Your task to perform on an android device: Open Android settings Image 0: 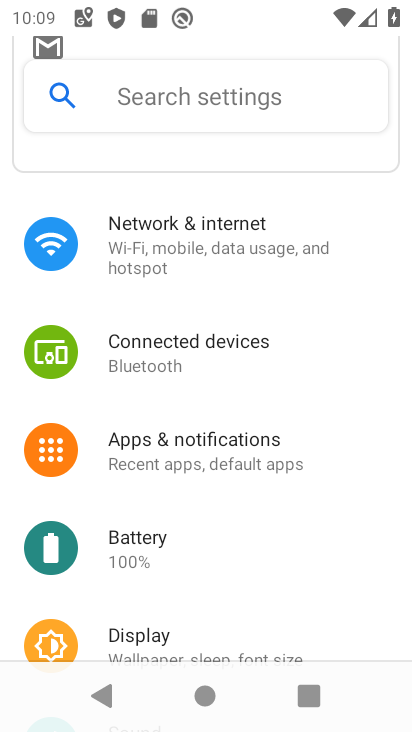
Step 0: press home button
Your task to perform on an android device: Open Android settings Image 1: 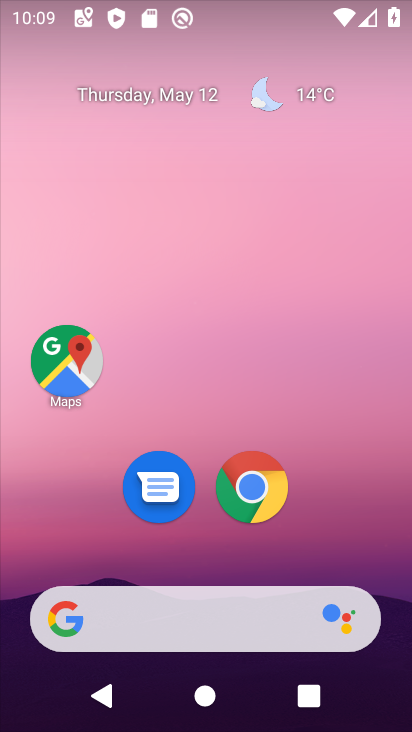
Step 1: drag from (27, 639) to (281, 99)
Your task to perform on an android device: Open Android settings Image 2: 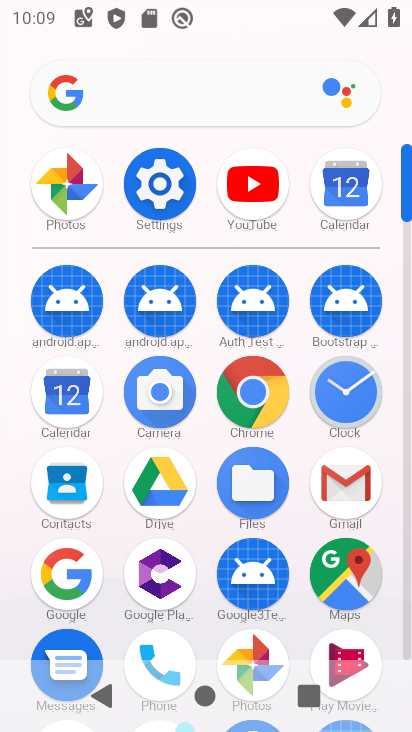
Step 2: click (154, 179)
Your task to perform on an android device: Open Android settings Image 3: 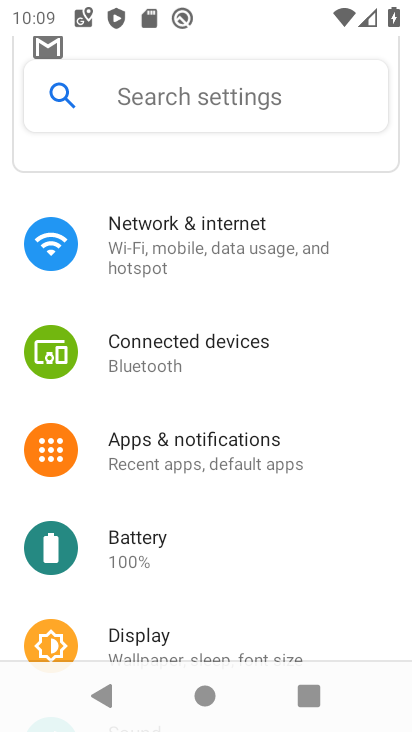
Step 3: drag from (191, 717) to (261, 205)
Your task to perform on an android device: Open Android settings Image 4: 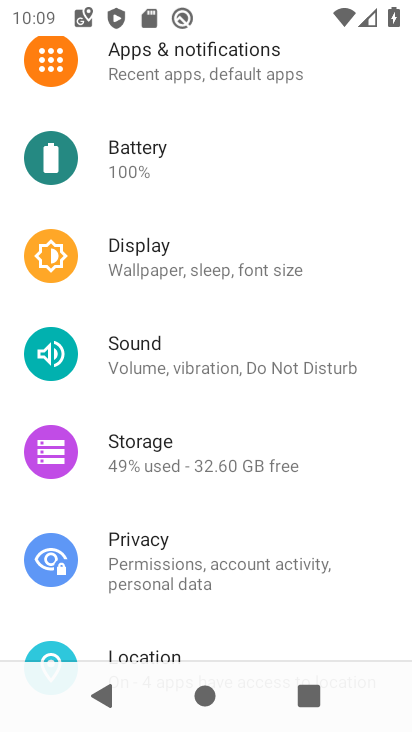
Step 4: drag from (169, 584) to (310, 103)
Your task to perform on an android device: Open Android settings Image 5: 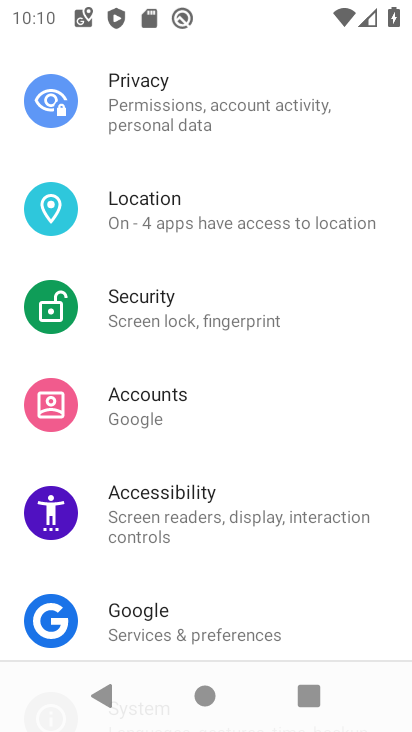
Step 5: drag from (99, 578) to (305, 103)
Your task to perform on an android device: Open Android settings Image 6: 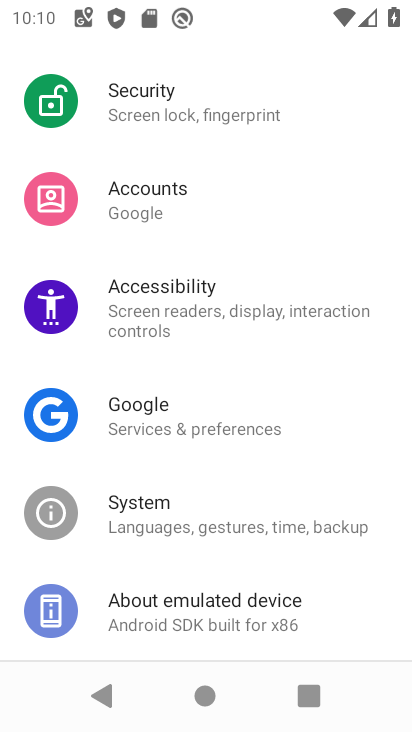
Step 6: click (143, 595)
Your task to perform on an android device: Open Android settings Image 7: 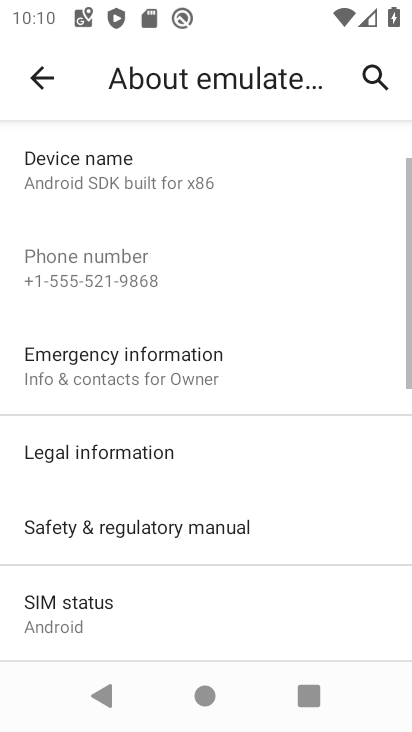
Step 7: task complete